Your task to perform on an android device: Check the news Image 0: 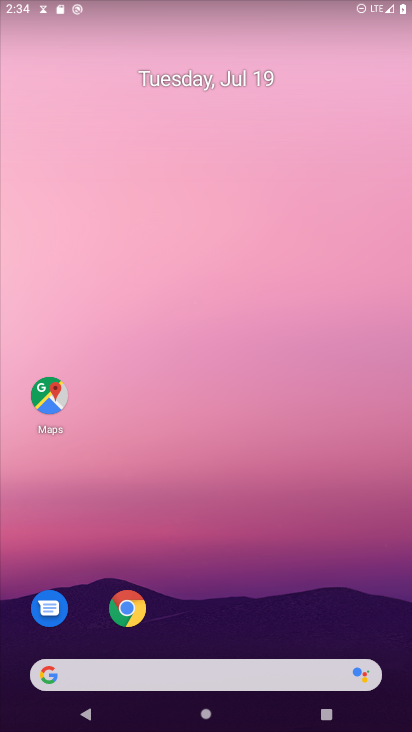
Step 0: drag from (238, 676) to (252, 27)
Your task to perform on an android device: Check the news Image 1: 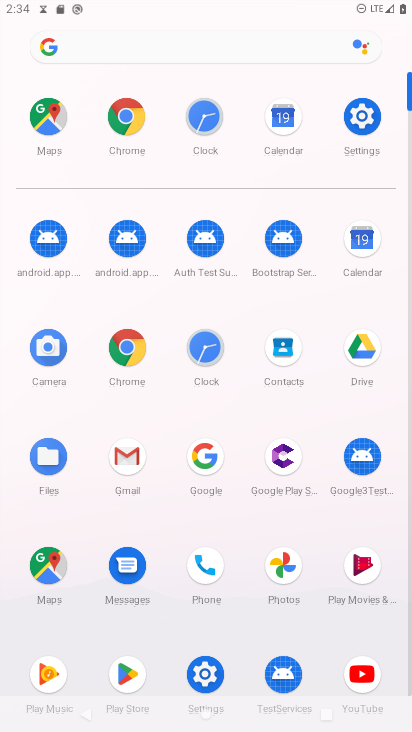
Step 1: click (125, 341)
Your task to perform on an android device: Check the news Image 2: 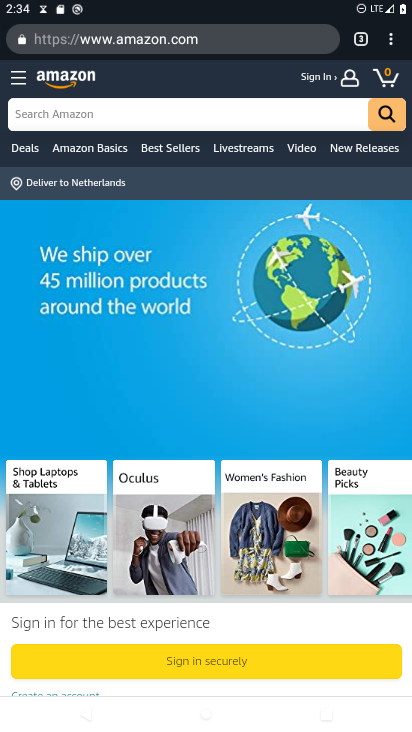
Step 2: click (231, 40)
Your task to perform on an android device: Check the news Image 3: 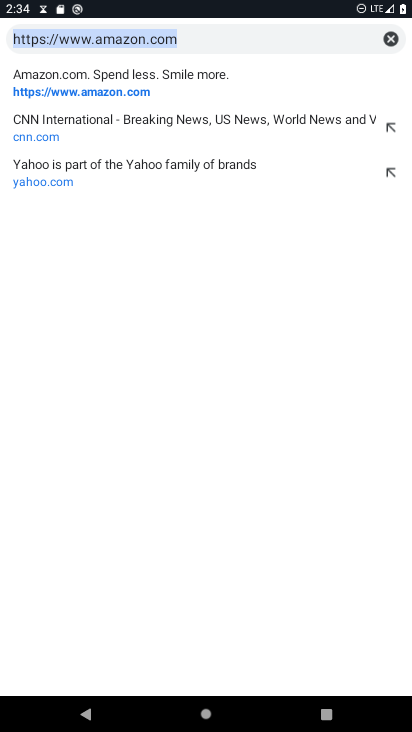
Step 3: type "check the news"
Your task to perform on an android device: Check the news Image 4: 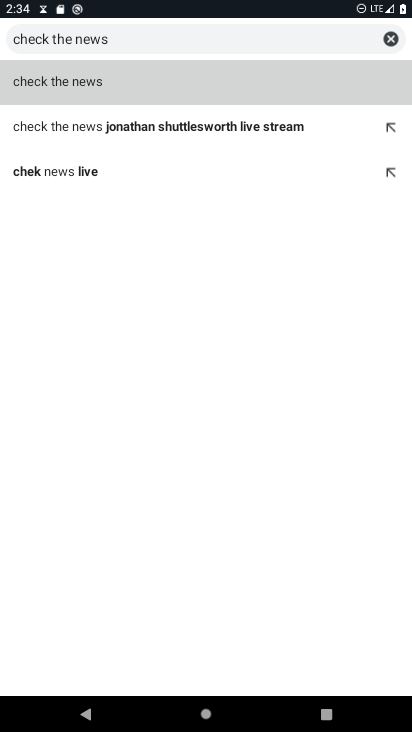
Step 4: click (91, 78)
Your task to perform on an android device: Check the news Image 5: 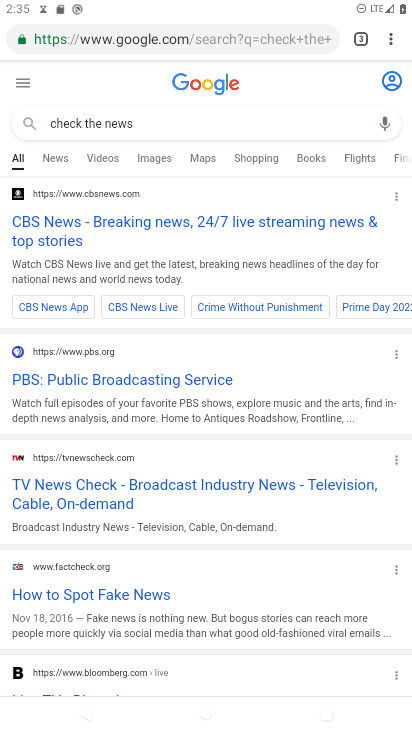
Step 5: task complete